Your task to perform on an android device: change your default location settings in chrome Image 0: 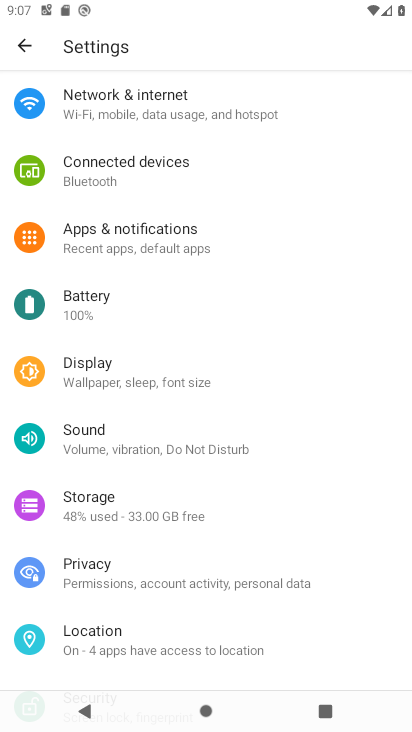
Step 0: press home button
Your task to perform on an android device: change your default location settings in chrome Image 1: 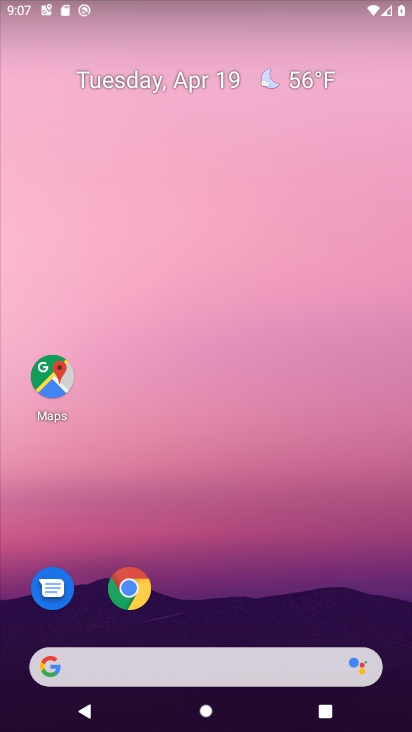
Step 1: click (128, 579)
Your task to perform on an android device: change your default location settings in chrome Image 2: 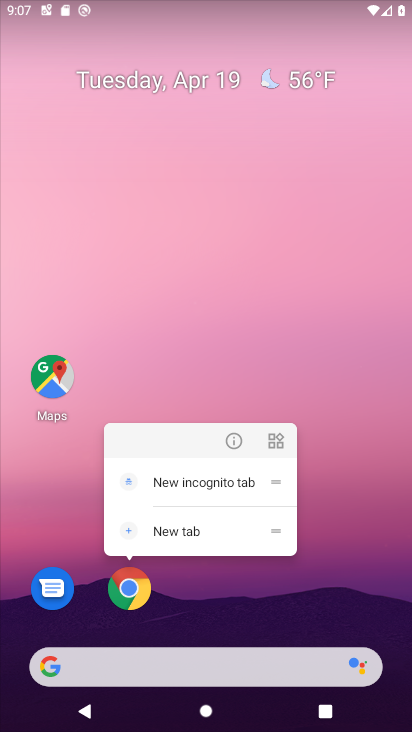
Step 2: click (128, 586)
Your task to perform on an android device: change your default location settings in chrome Image 3: 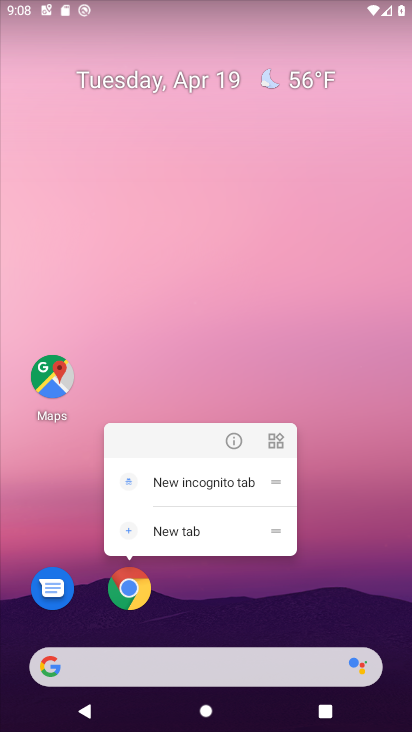
Step 3: click (215, 607)
Your task to perform on an android device: change your default location settings in chrome Image 4: 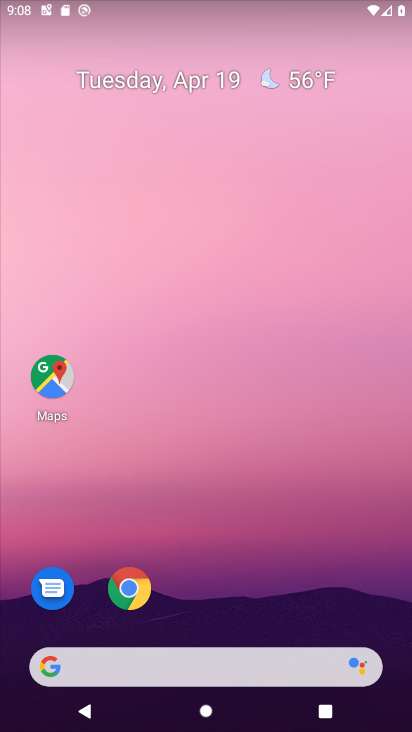
Step 4: drag from (246, 618) to (262, 125)
Your task to perform on an android device: change your default location settings in chrome Image 5: 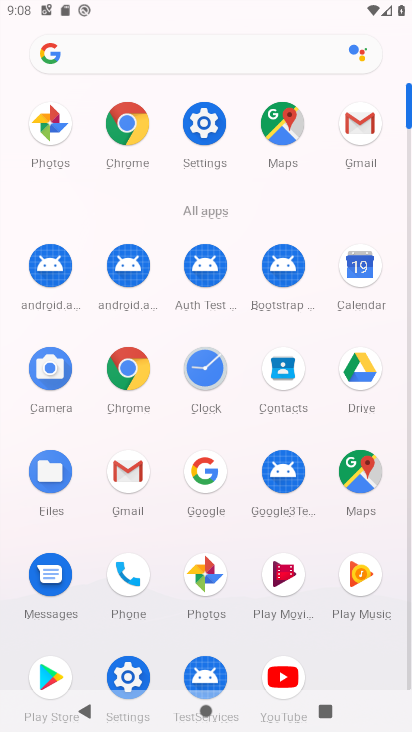
Step 5: click (123, 117)
Your task to perform on an android device: change your default location settings in chrome Image 6: 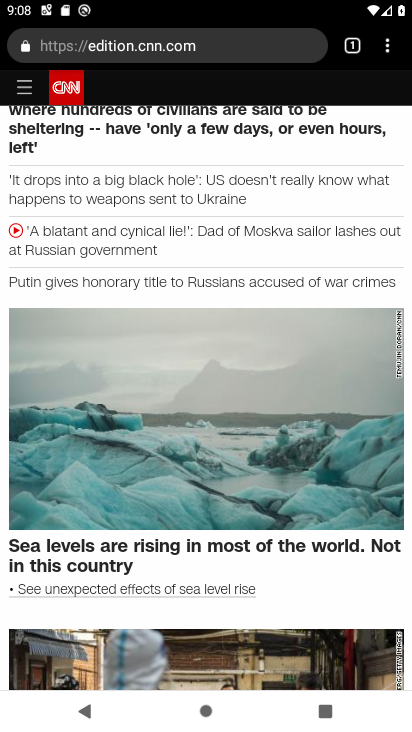
Step 6: click (386, 43)
Your task to perform on an android device: change your default location settings in chrome Image 7: 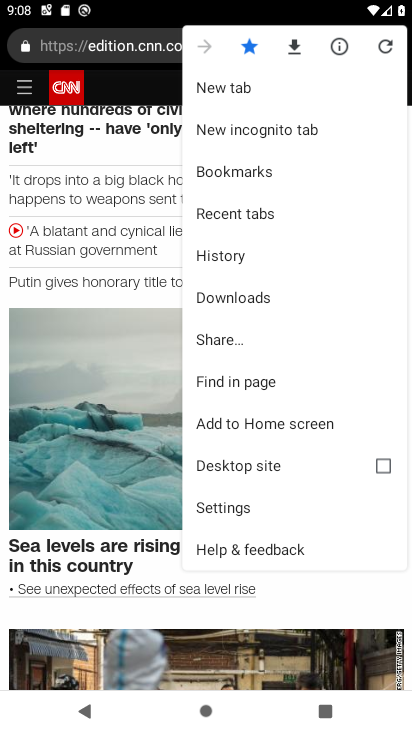
Step 7: click (253, 505)
Your task to perform on an android device: change your default location settings in chrome Image 8: 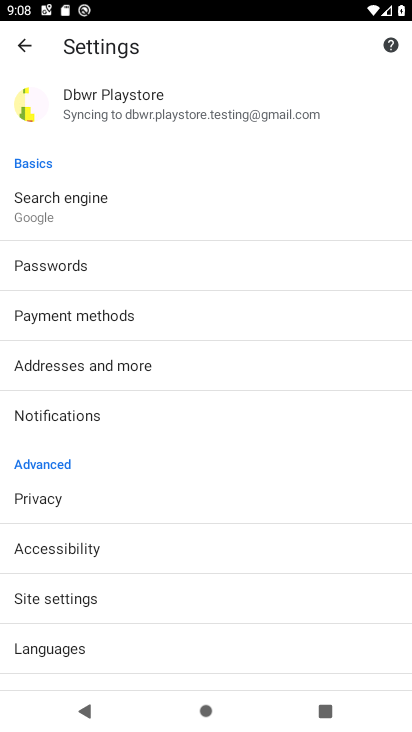
Step 8: click (111, 594)
Your task to perform on an android device: change your default location settings in chrome Image 9: 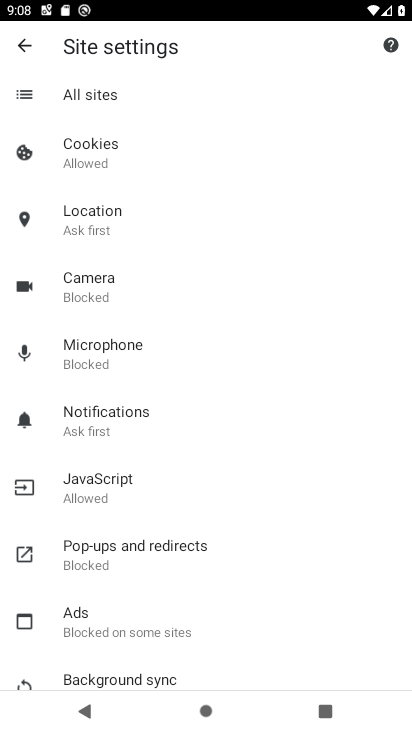
Step 9: click (137, 215)
Your task to perform on an android device: change your default location settings in chrome Image 10: 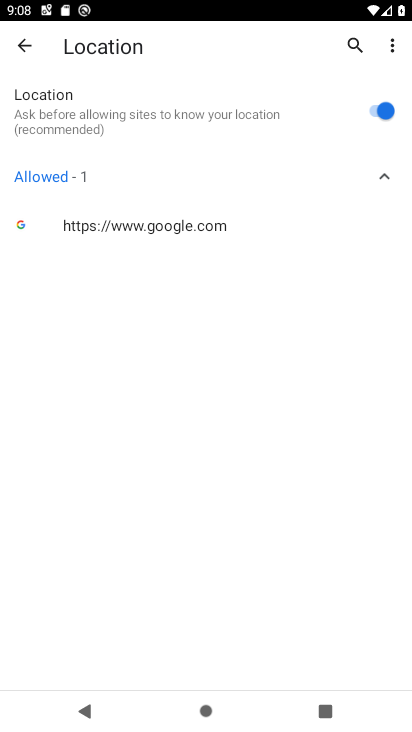
Step 10: click (372, 107)
Your task to perform on an android device: change your default location settings in chrome Image 11: 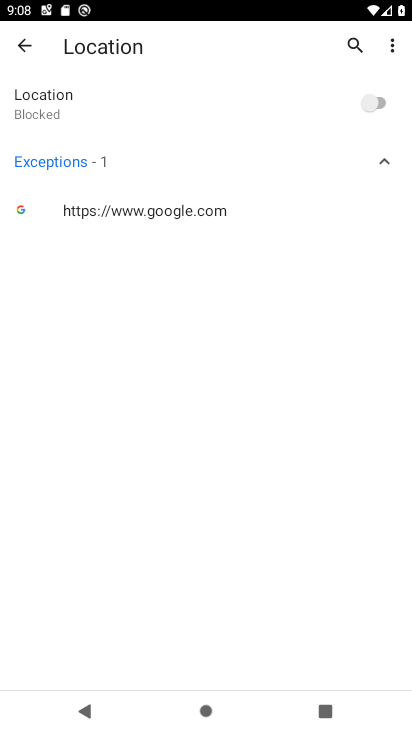
Step 11: task complete